Your task to perform on an android device: install app "Facebook Lite" Image 0: 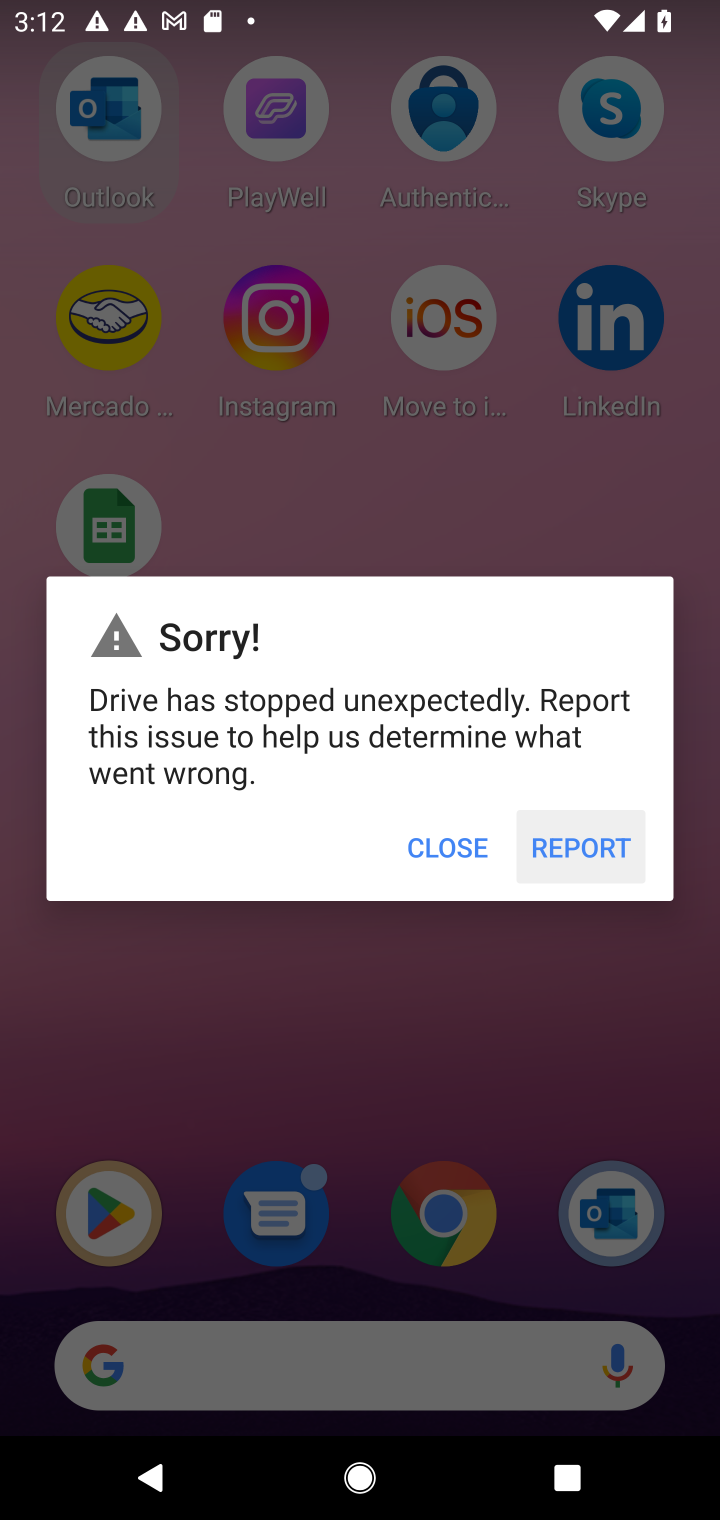
Step 0: press home button
Your task to perform on an android device: install app "Facebook Lite" Image 1: 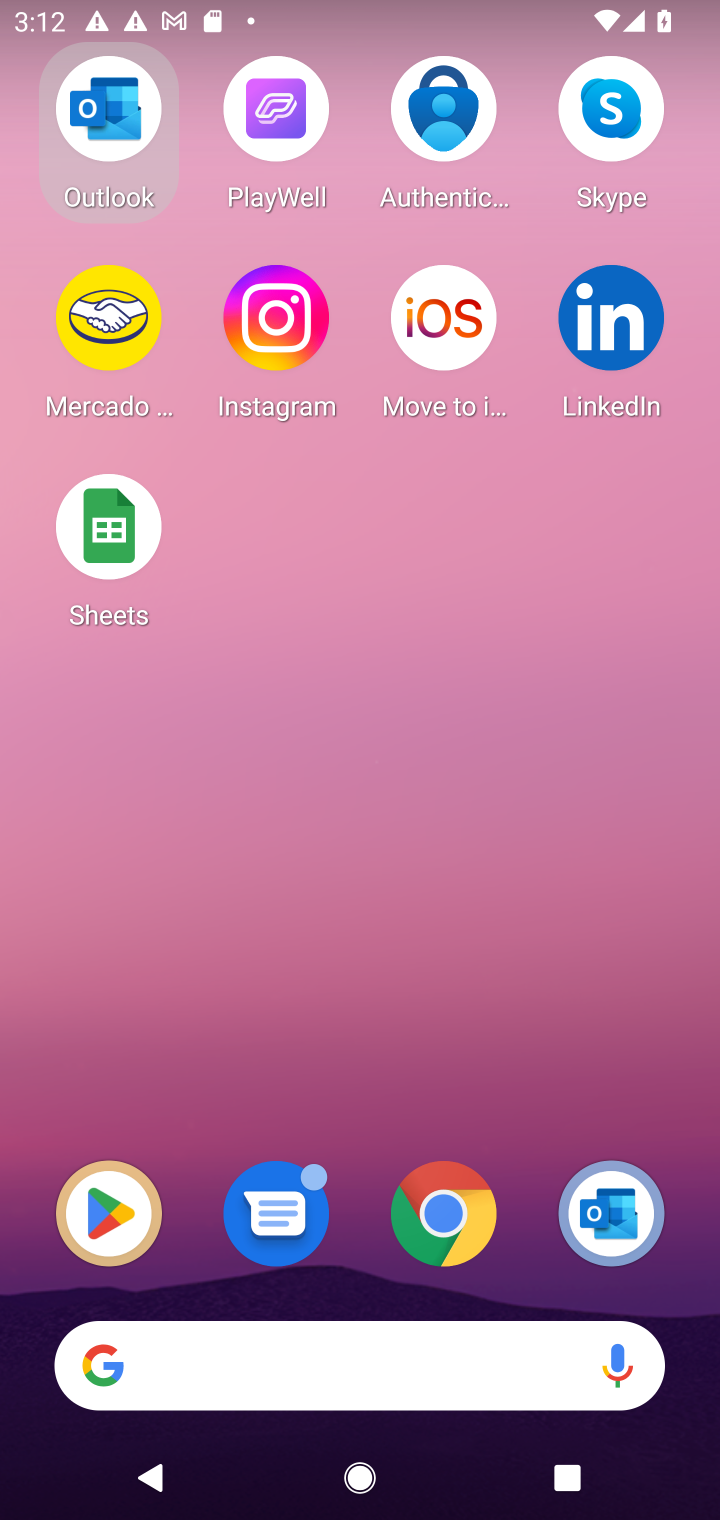
Step 1: drag from (514, 1041) to (617, 149)
Your task to perform on an android device: install app "Facebook Lite" Image 2: 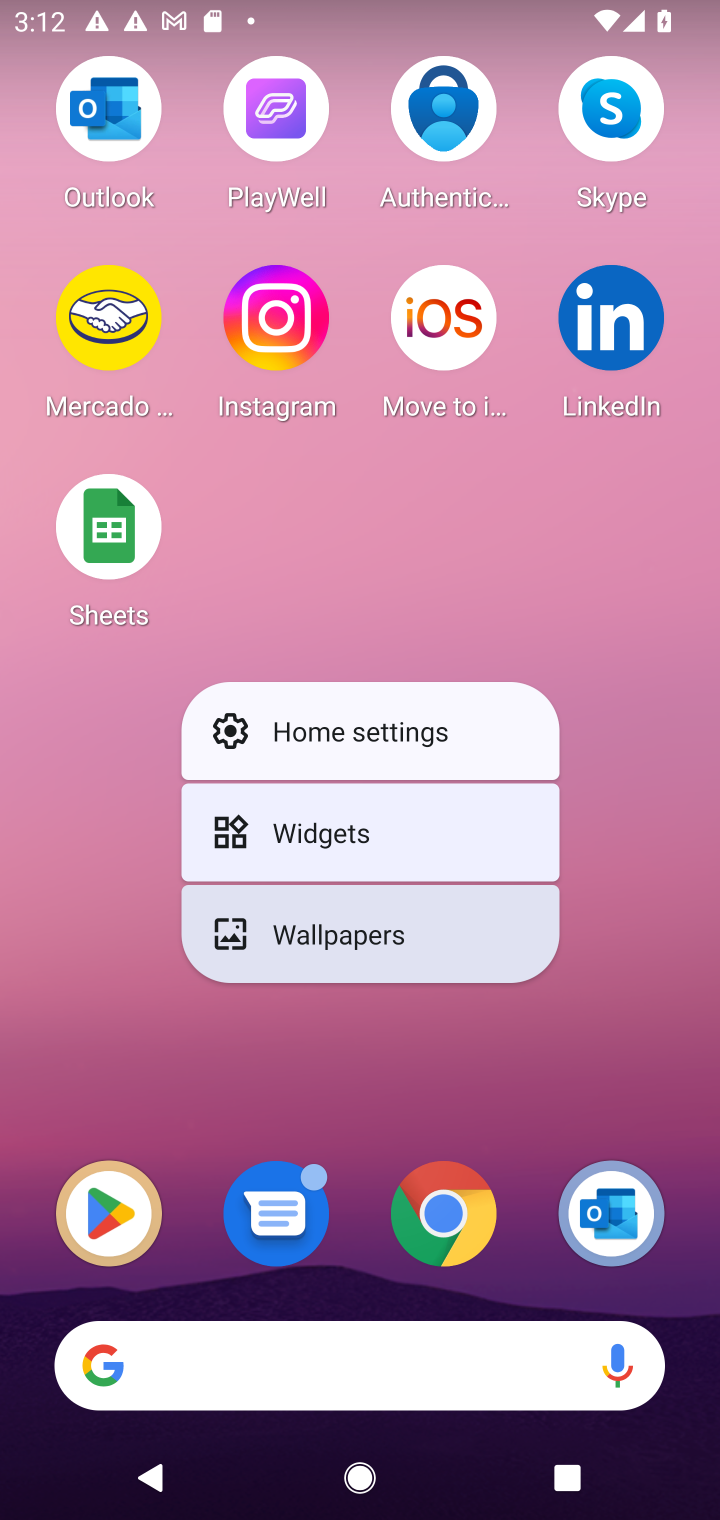
Step 2: click (654, 936)
Your task to perform on an android device: install app "Facebook Lite" Image 3: 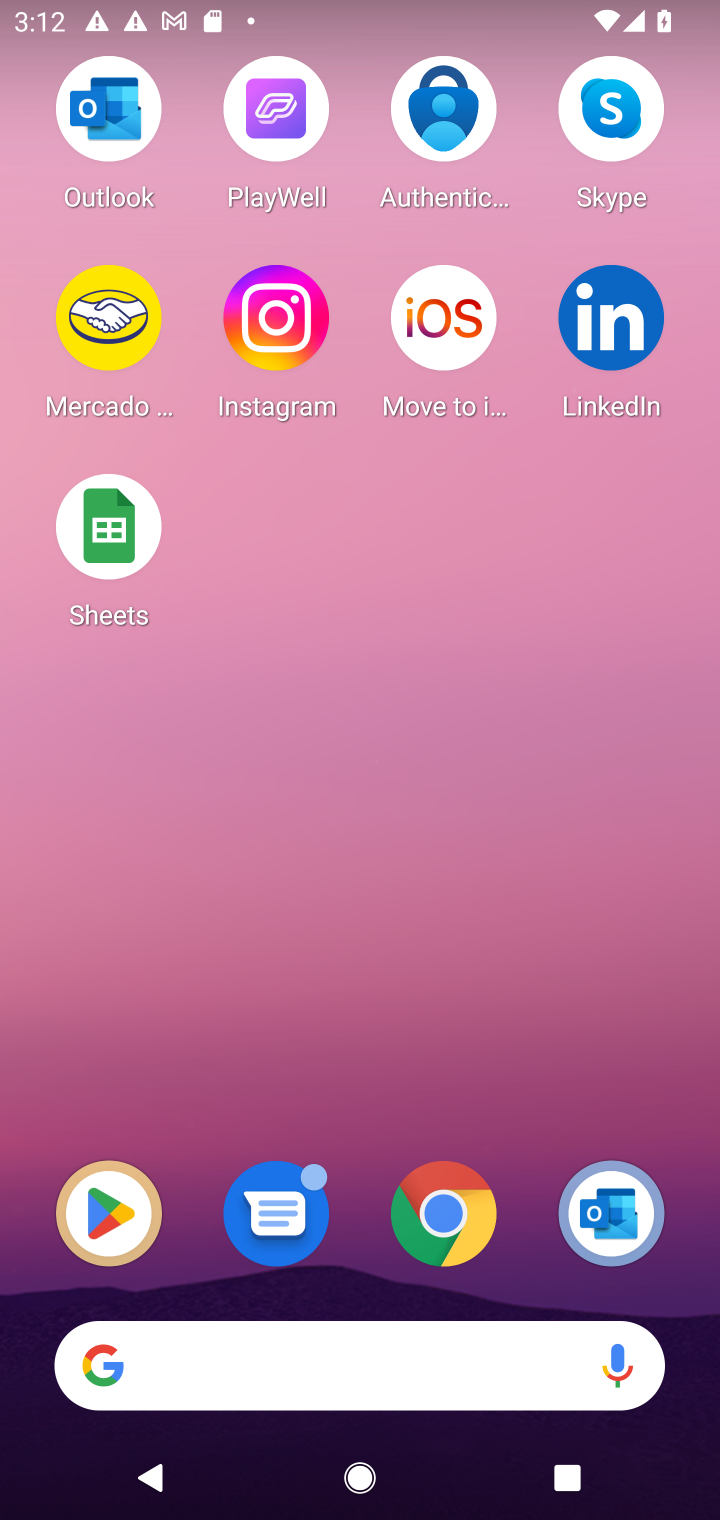
Step 3: drag from (497, 1093) to (663, 27)
Your task to perform on an android device: install app "Facebook Lite" Image 4: 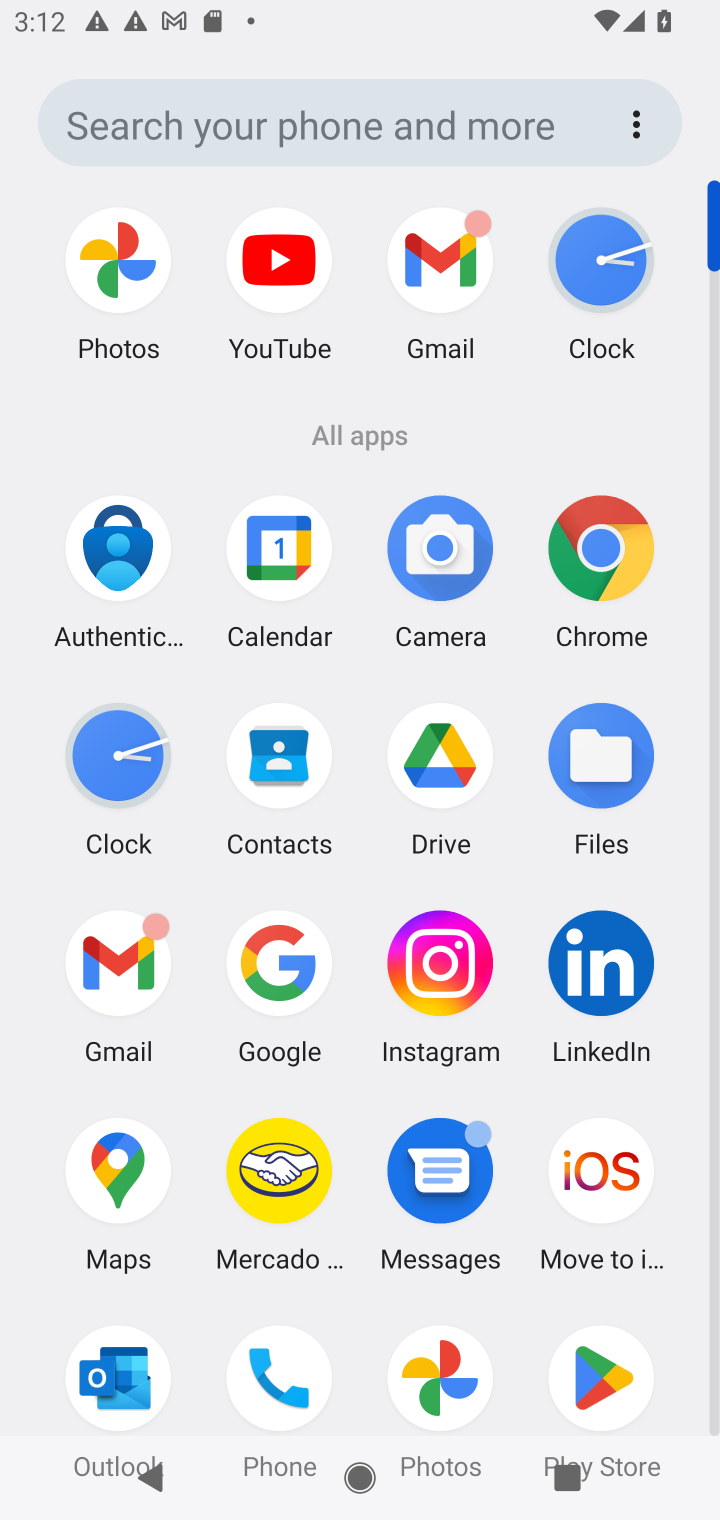
Step 4: click (602, 1375)
Your task to perform on an android device: install app "Facebook Lite" Image 5: 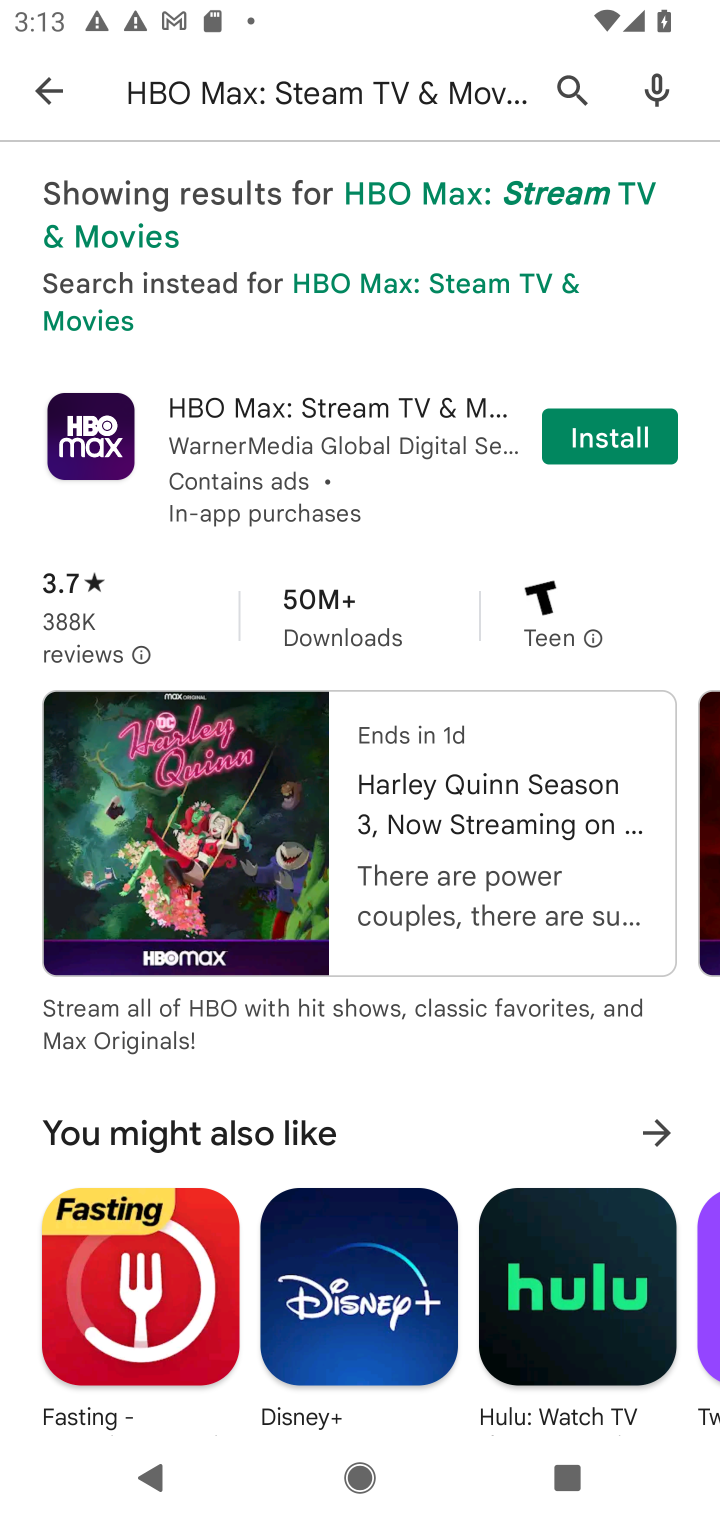
Step 5: click (341, 96)
Your task to perform on an android device: install app "Facebook Lite" Image 6: 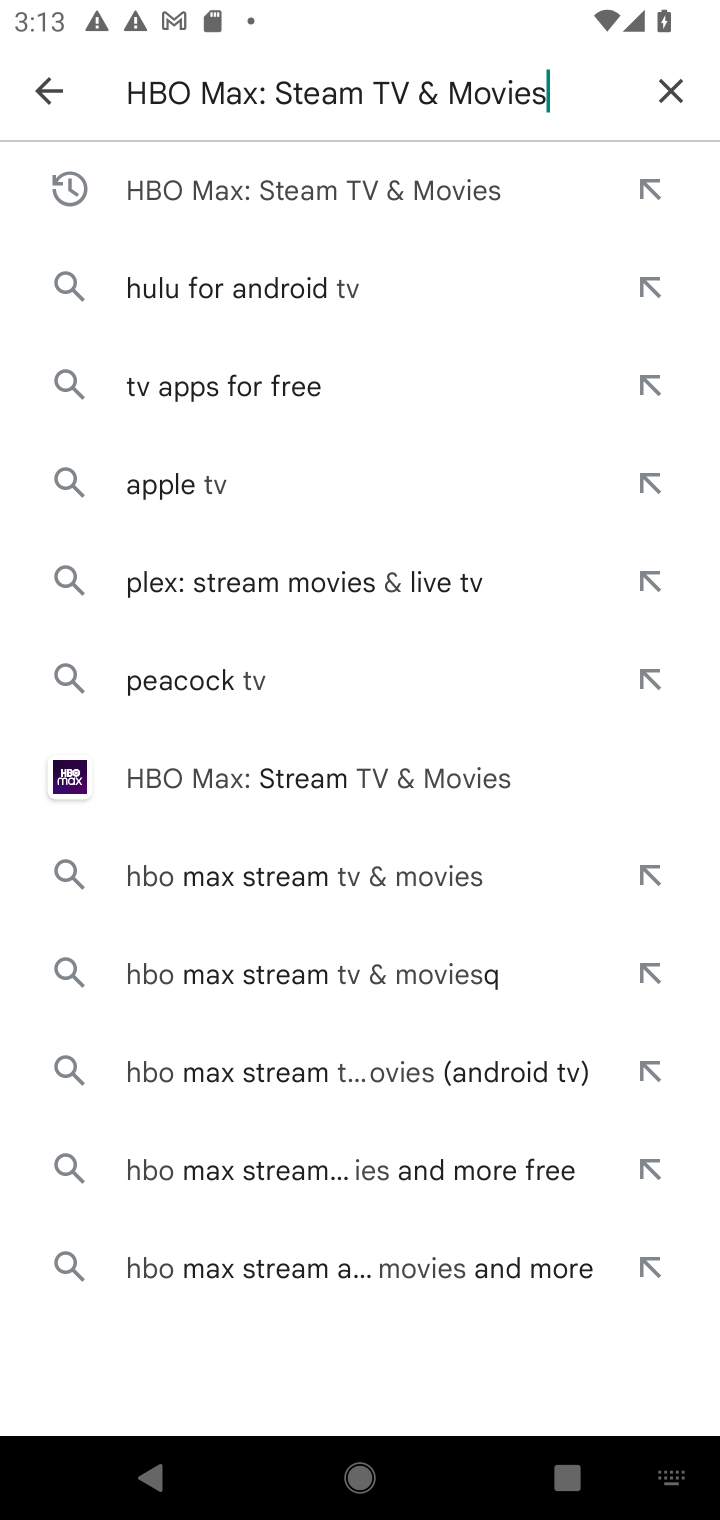
Step 6: click (672, 89)
Your task to perform on an android device: install app "Facebook Lite" Image 7: 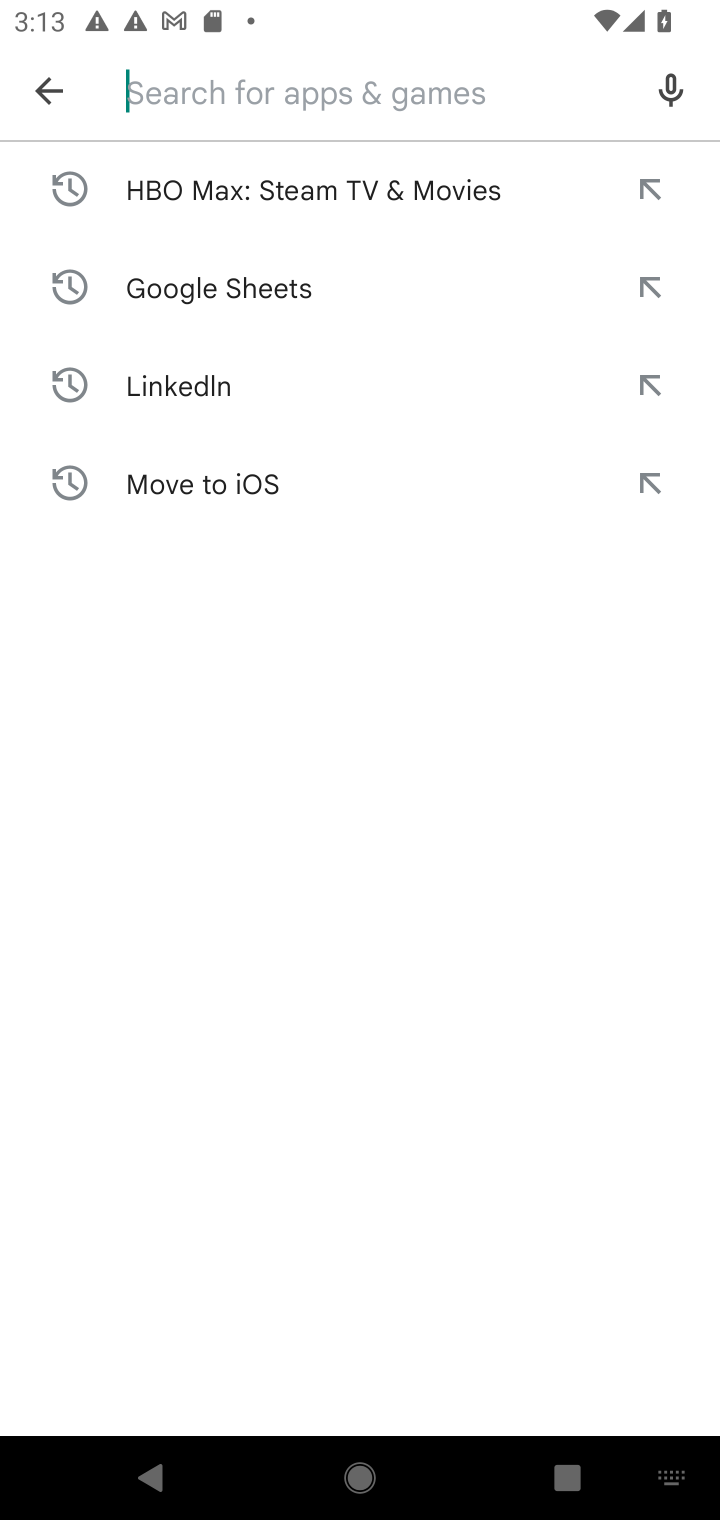
Step 7: type "Facebook Lite"
Your task to perform on an android device: install app "Facebook Lite" Image 8: 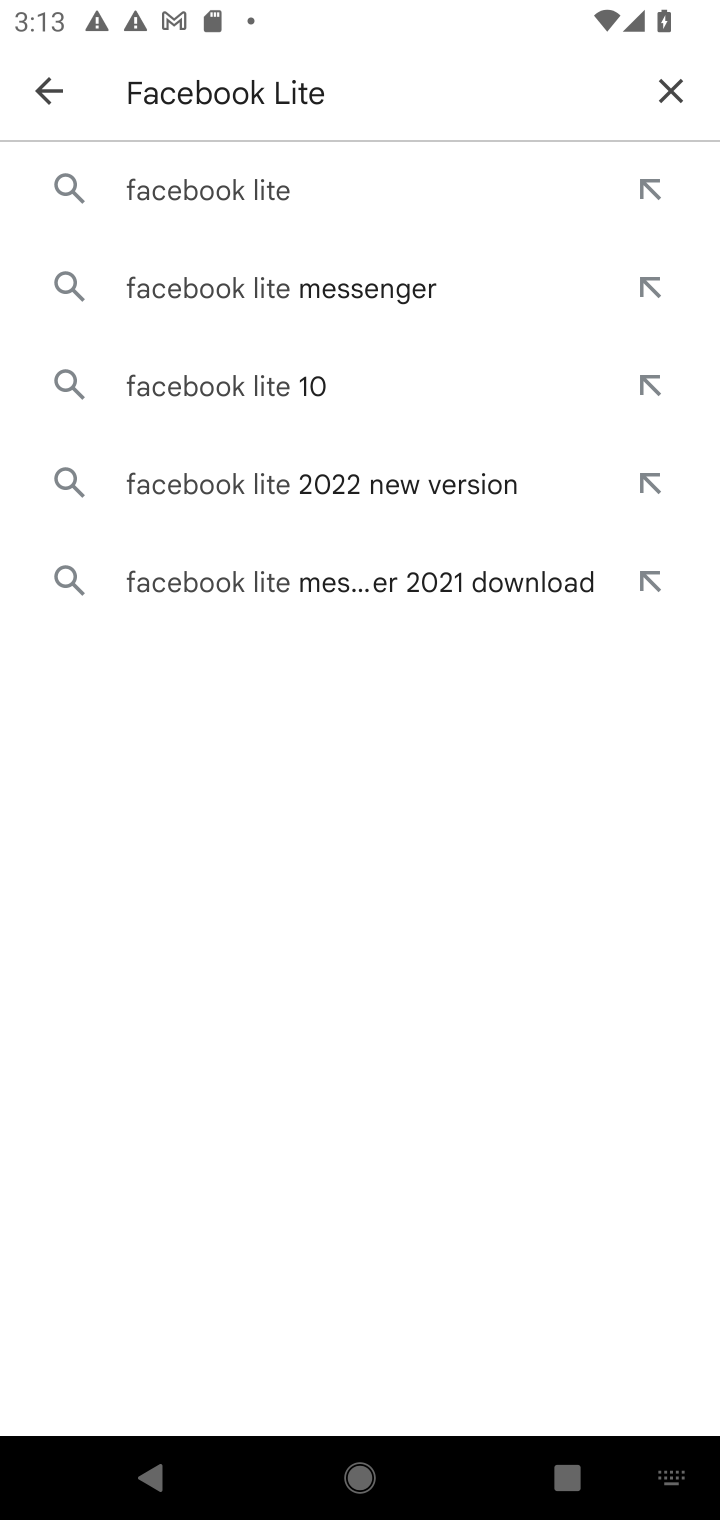
Step 8: press enter
Your task to perform on an android device: install app "Facebook Lite" Image 9: 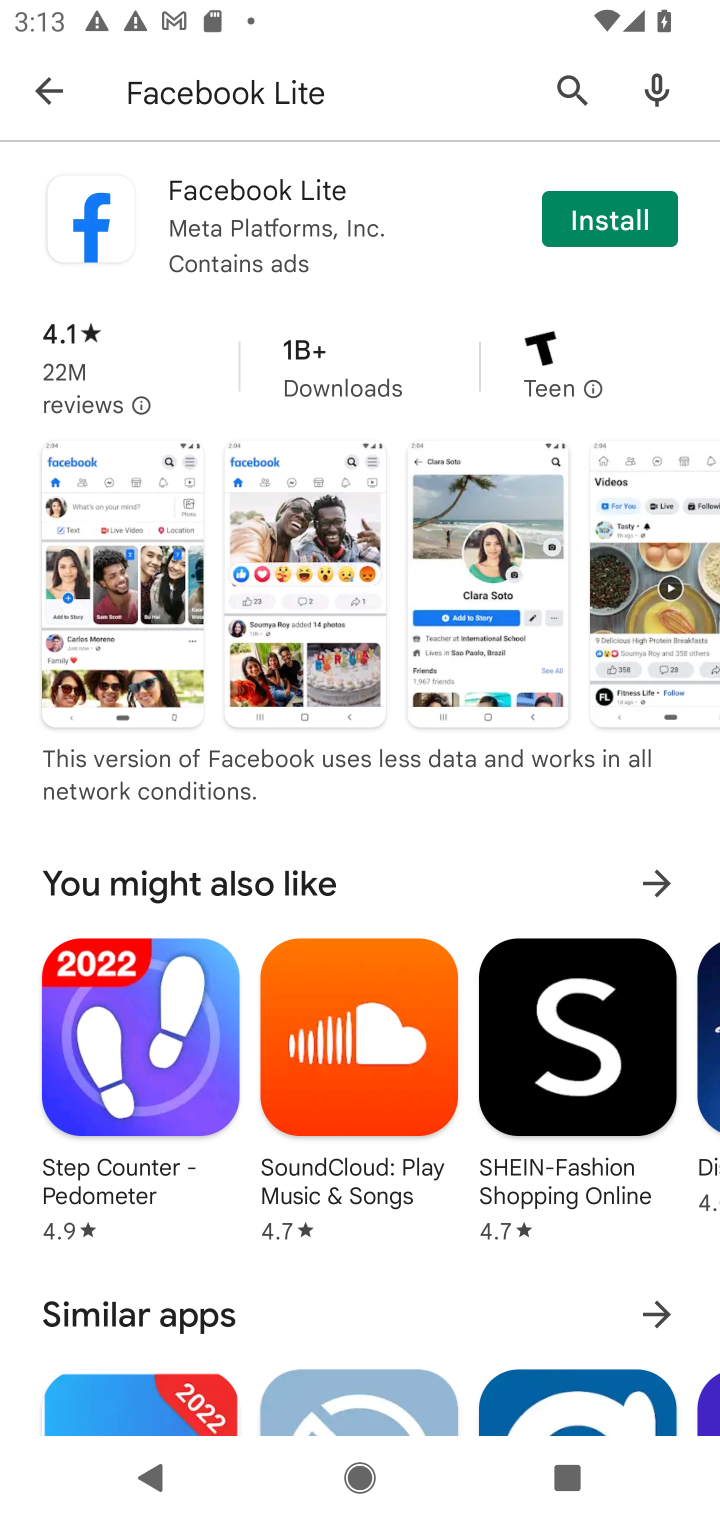
Step 9: click (622, 216)
Your task to perform on an android device: install app "Facebook Lite" Image 10: 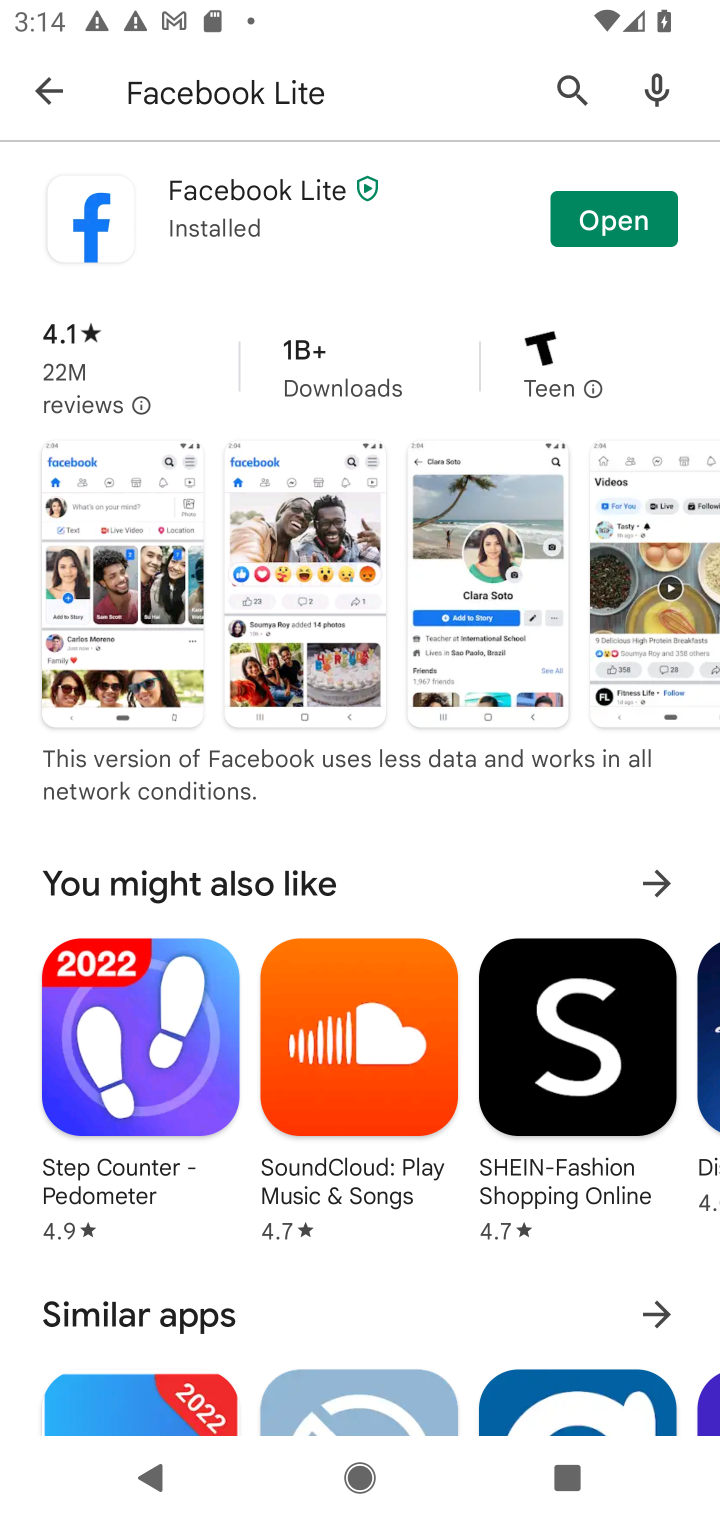
Step 10: task complete